Your task to perform on an android device: Go to Amazon Image 0: 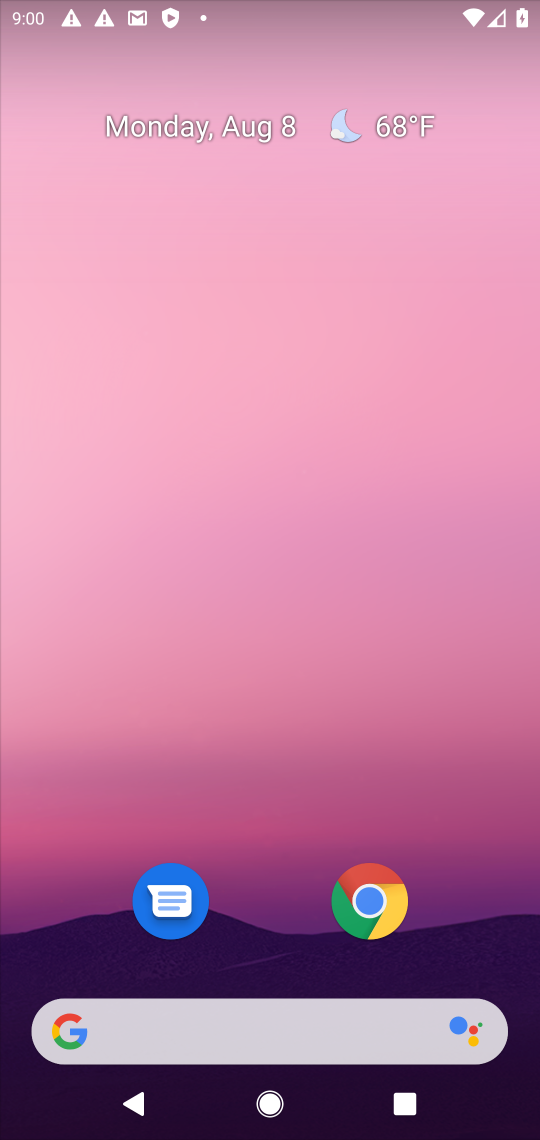
Step 0: drag from (281, 456) to (257, 86)
Your task to perform on an android device: Go to Amazon Image 1: 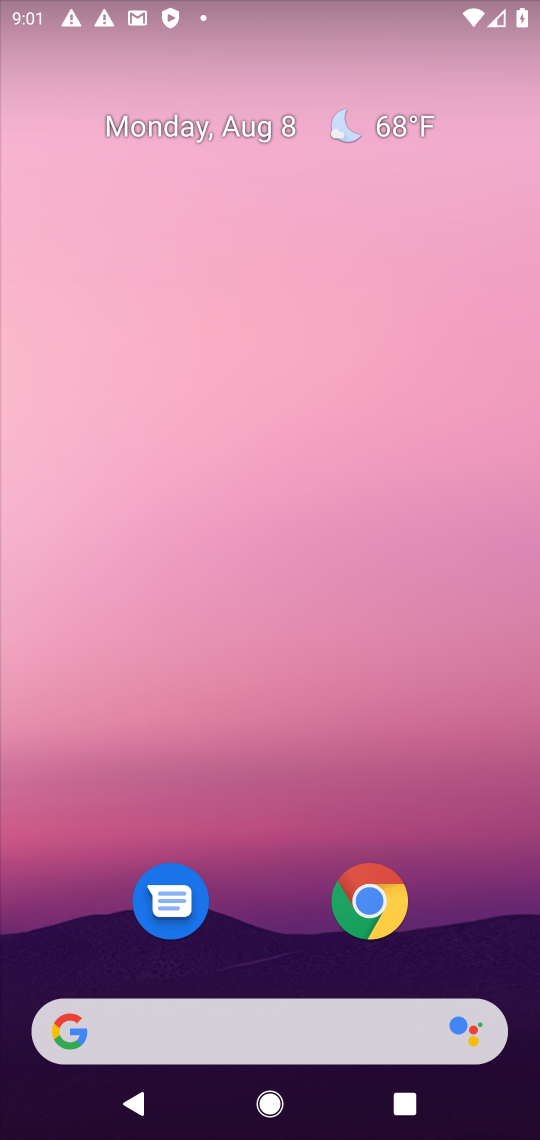
Step 1: drag from (268, 950) to (254, 13)
Your task to perform on an android device: Go to Amazon Image 2: 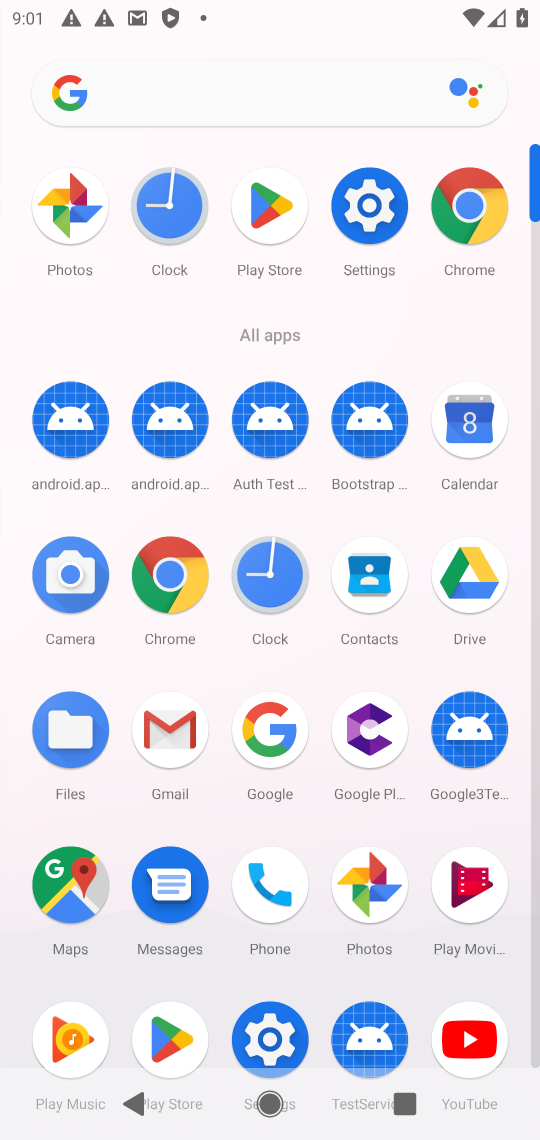
Step 2: click (469, 201)
Your task to perform on an android device: Go to Amazon Image 3: 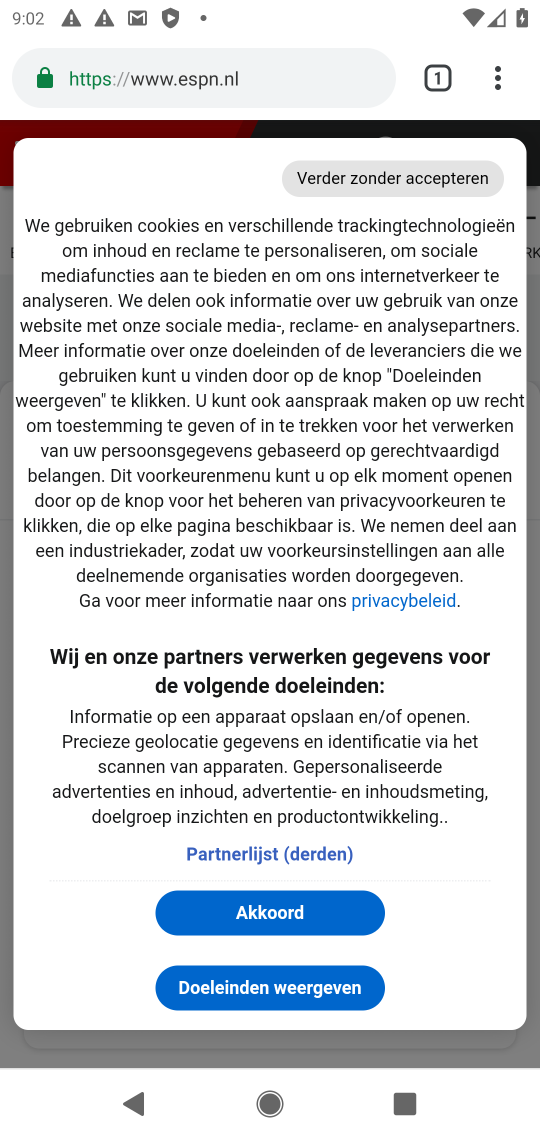
Step 3: click (201, 69)
Your task to perform on an android device: Go to Amazon Image 4: 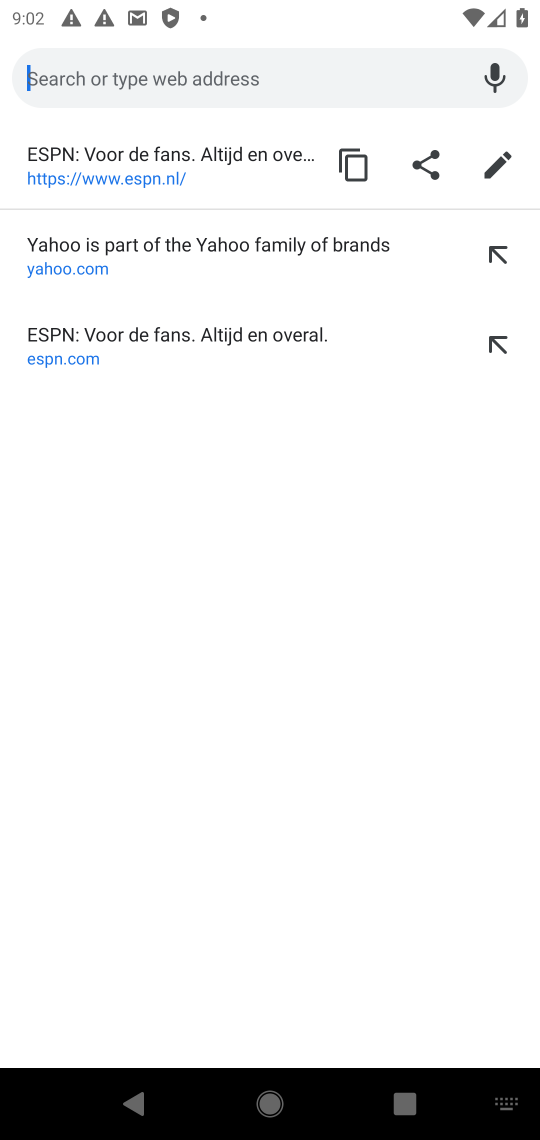
Step 4: type "www.amazon.com"
Your task to perform on an android device: Go to Amazon Image 5: 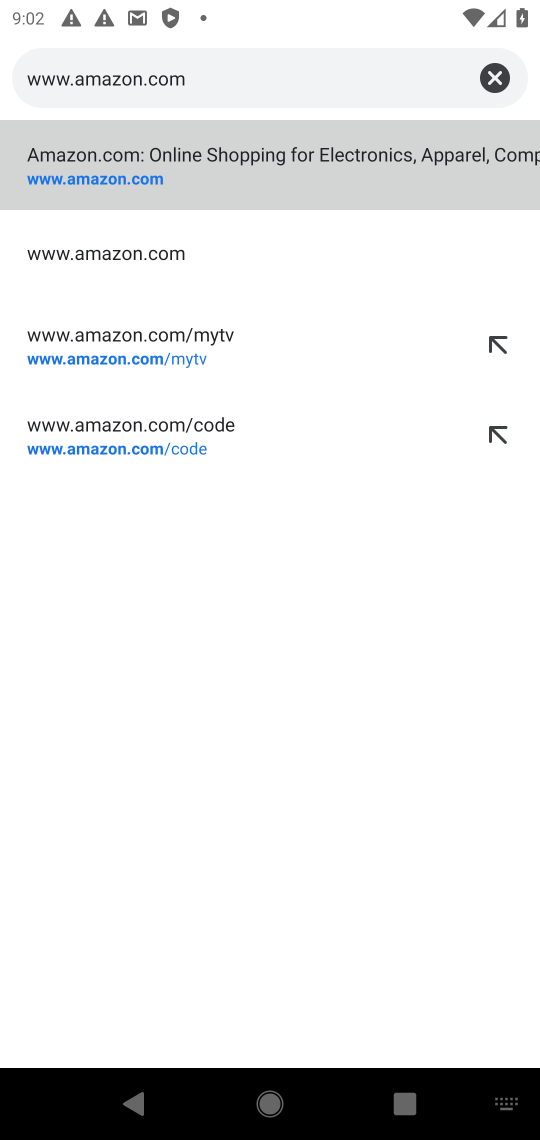
Step 5: click (98, 178)
Your task to perform on an android device: Go to Amazon Image 6: 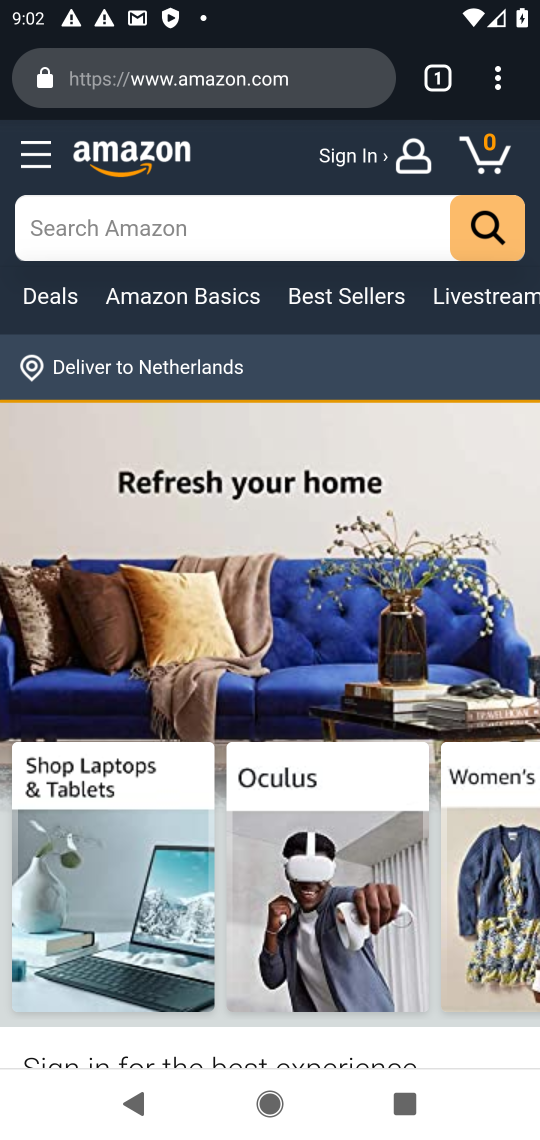
Step 6: task complete